Your task to perform on an android device: Search for the best rated headphones on Amazon Image 0: 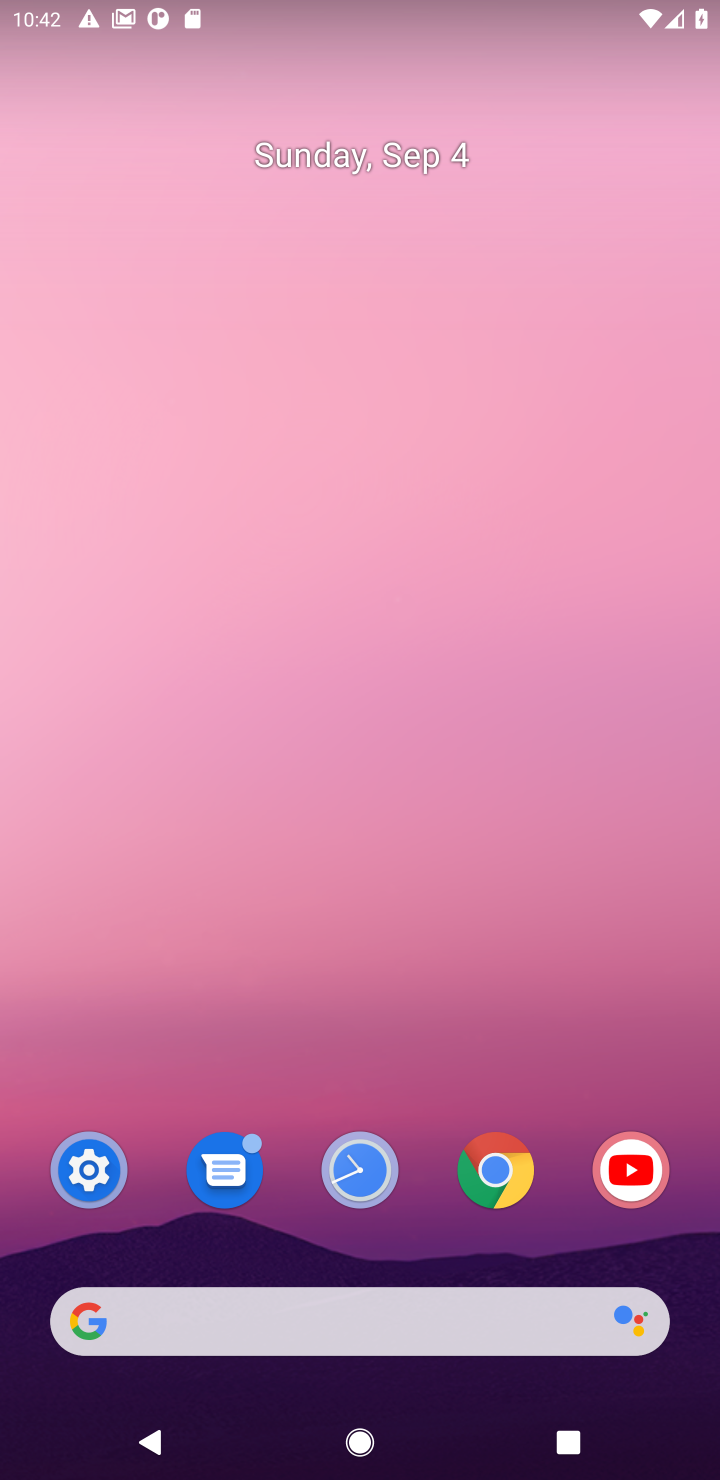
Step 0: click (398, 1263)
Your task to perform on an android device: Search for the best rated headphones on Amazon Image 1: 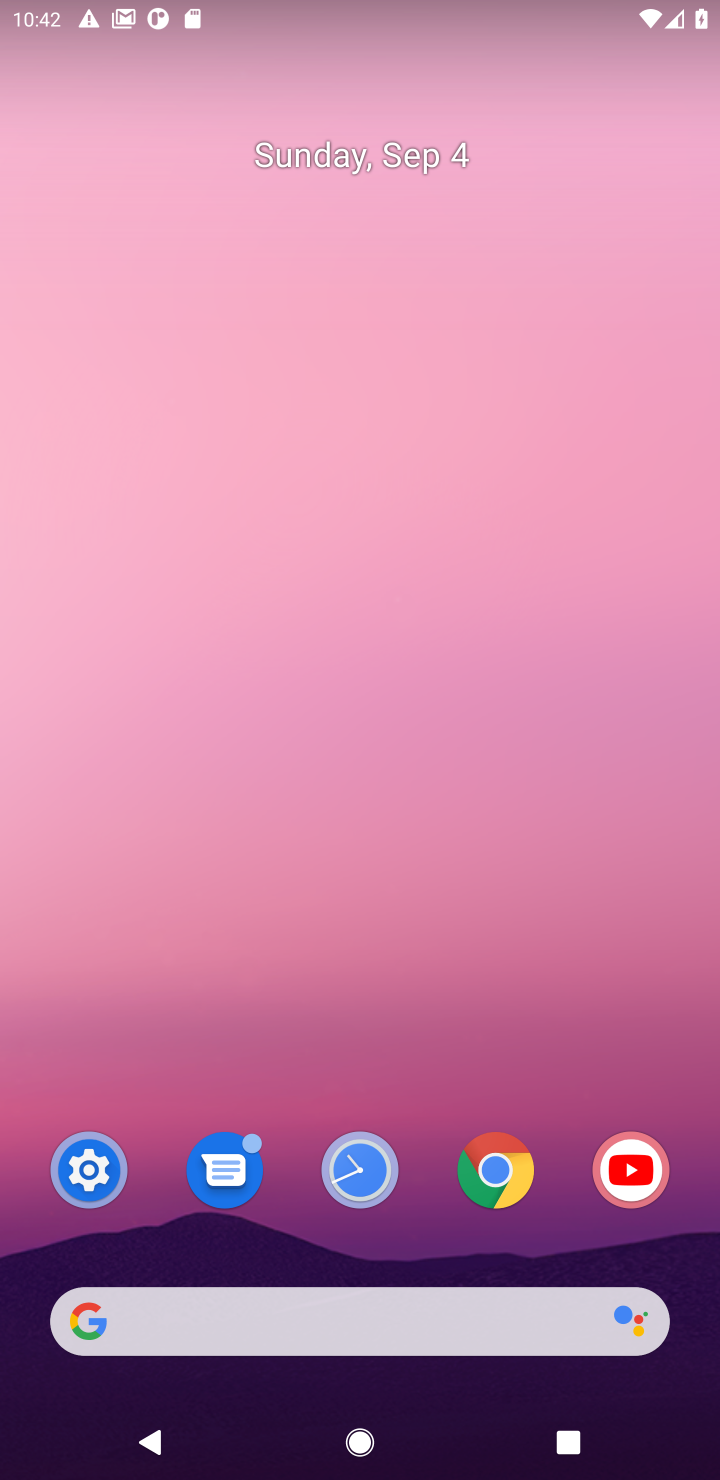
Step 1: click (502, 1167)
Your task to perform on an android device: Search for the best rated headphones on Amazon Image 2: 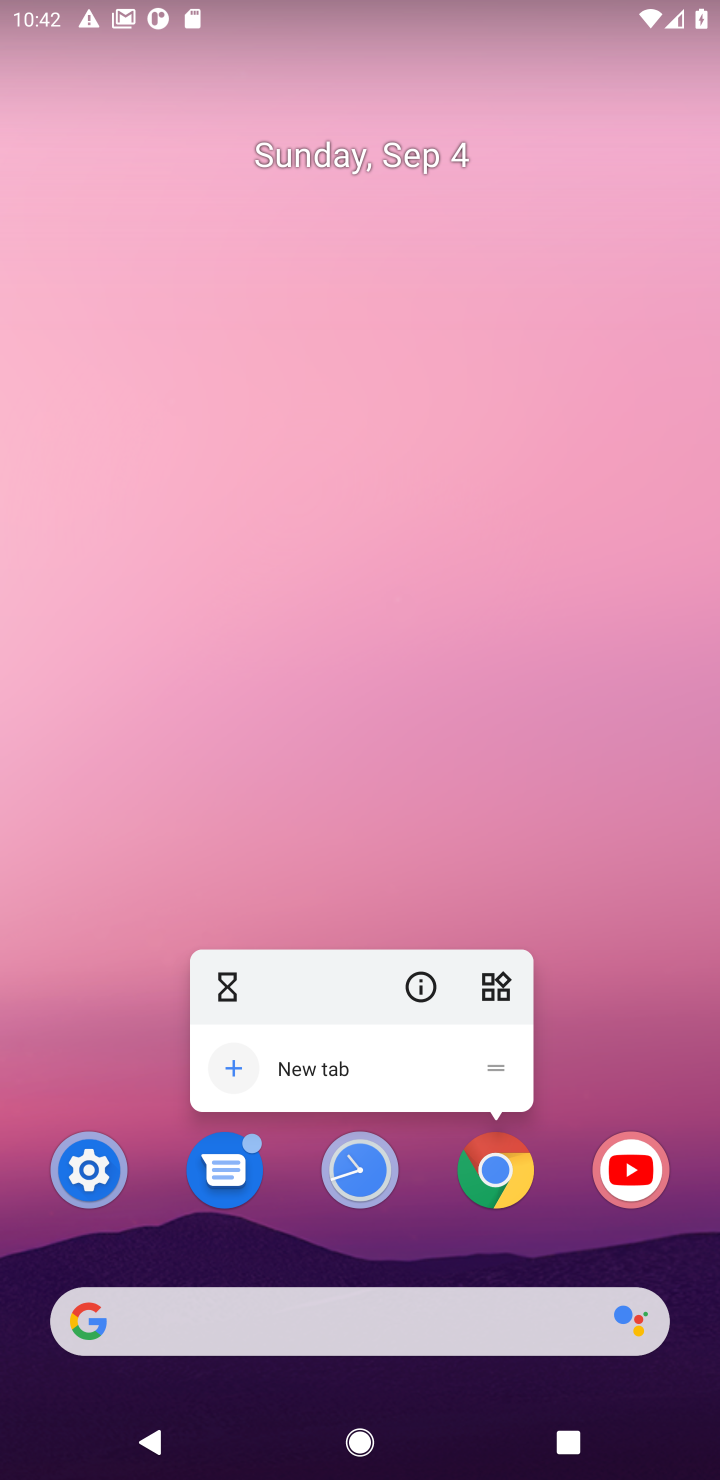
Step 2: click (518, 1180)
Your task to perform on an android device: Search for the best rated headphones on Amazon Image 3: 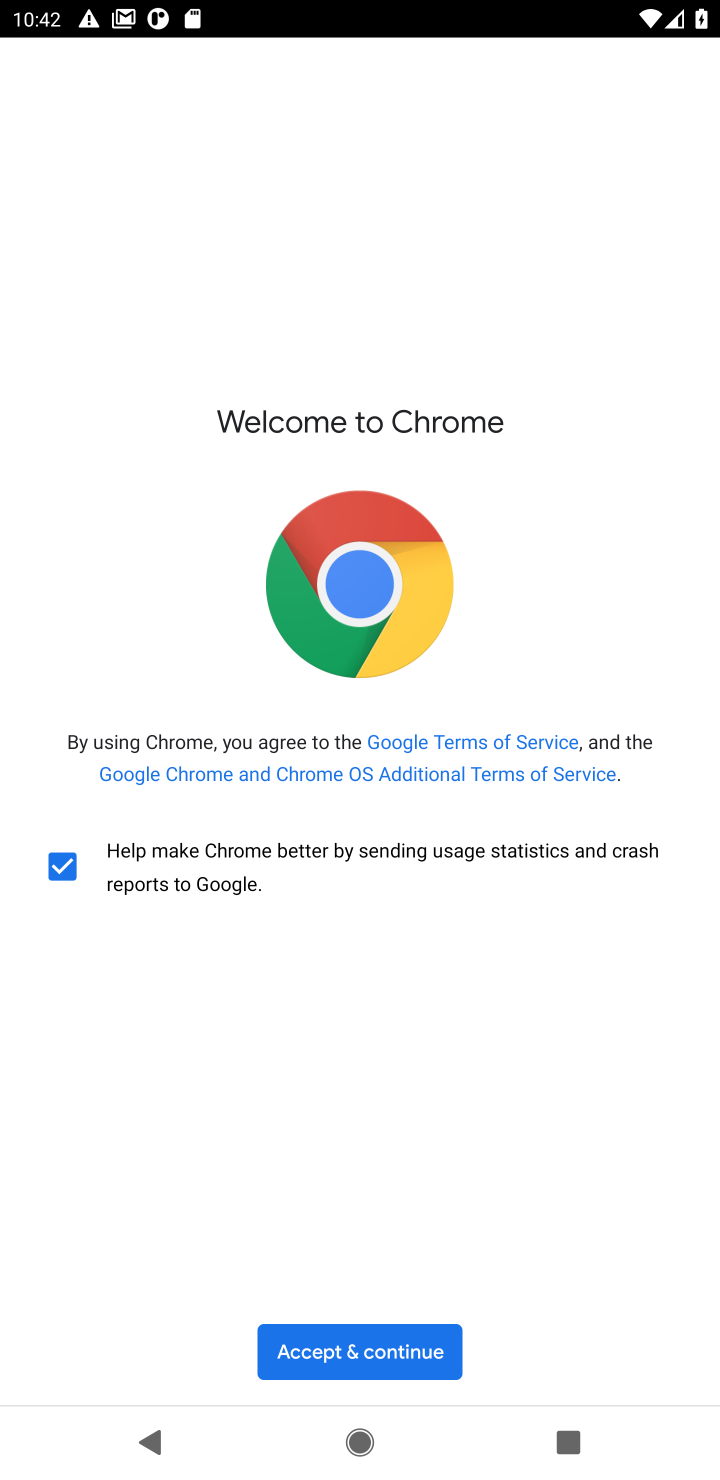
Step 3: click (385, 1333)
Your task to perform on an android device: Search for the best rated headphones on Amazon Image 4: 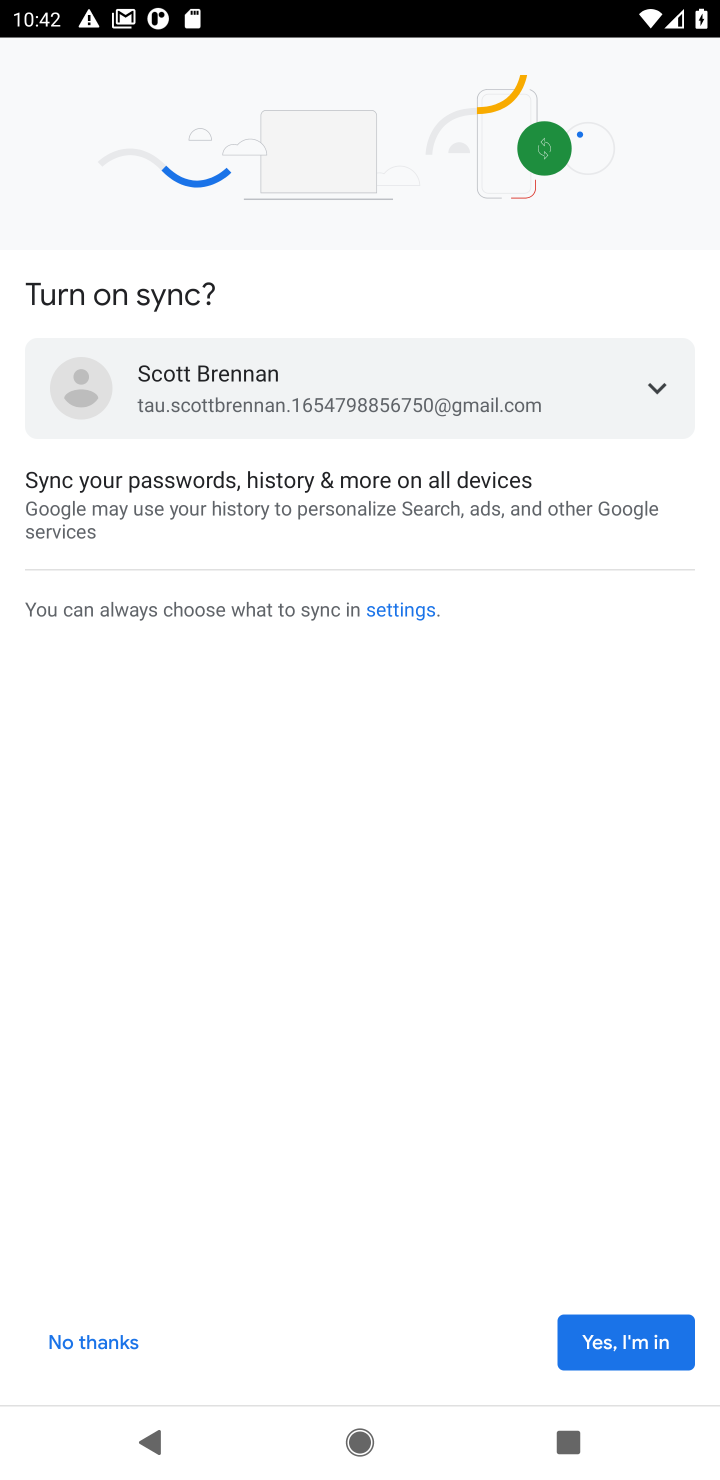
Step 4: click (601, 1333)
Your task to perform on an android device: Search for the best rated headphones on Amazon Image 5: 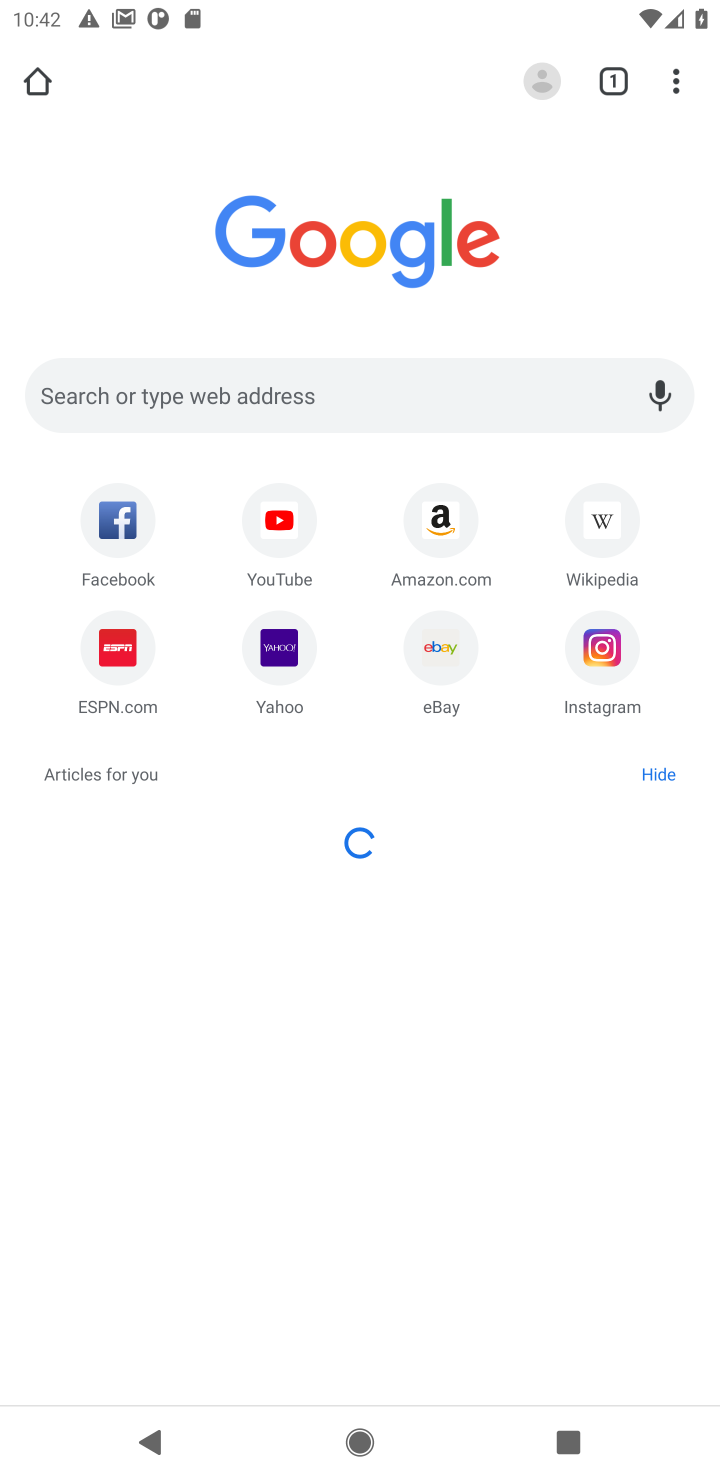
Step 5: click (295, 417)
Your task to perform on an android device: Search for the best rated headphones on Amazon Image 6: 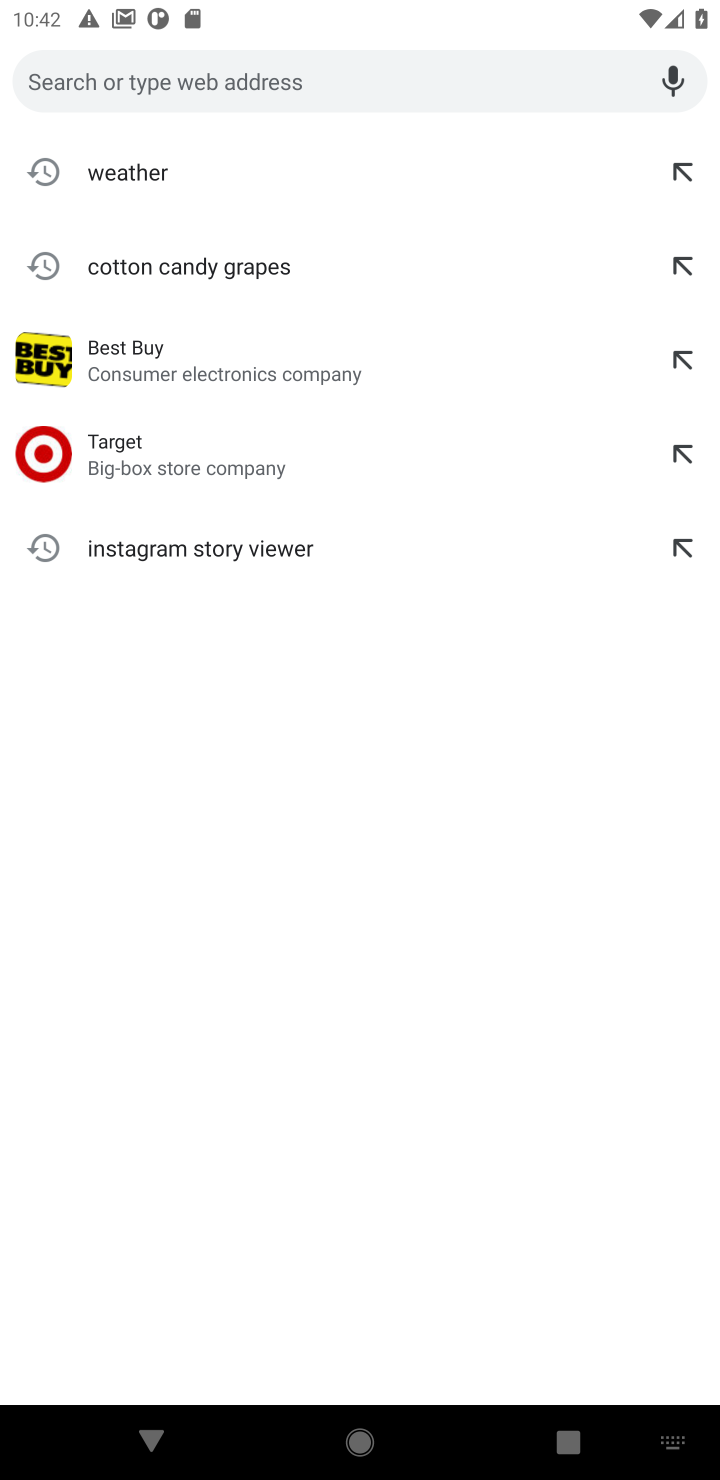
Step 6: press back button
Your task to perform on an android device: Search for the best rated headphones on Amazon Image 7: 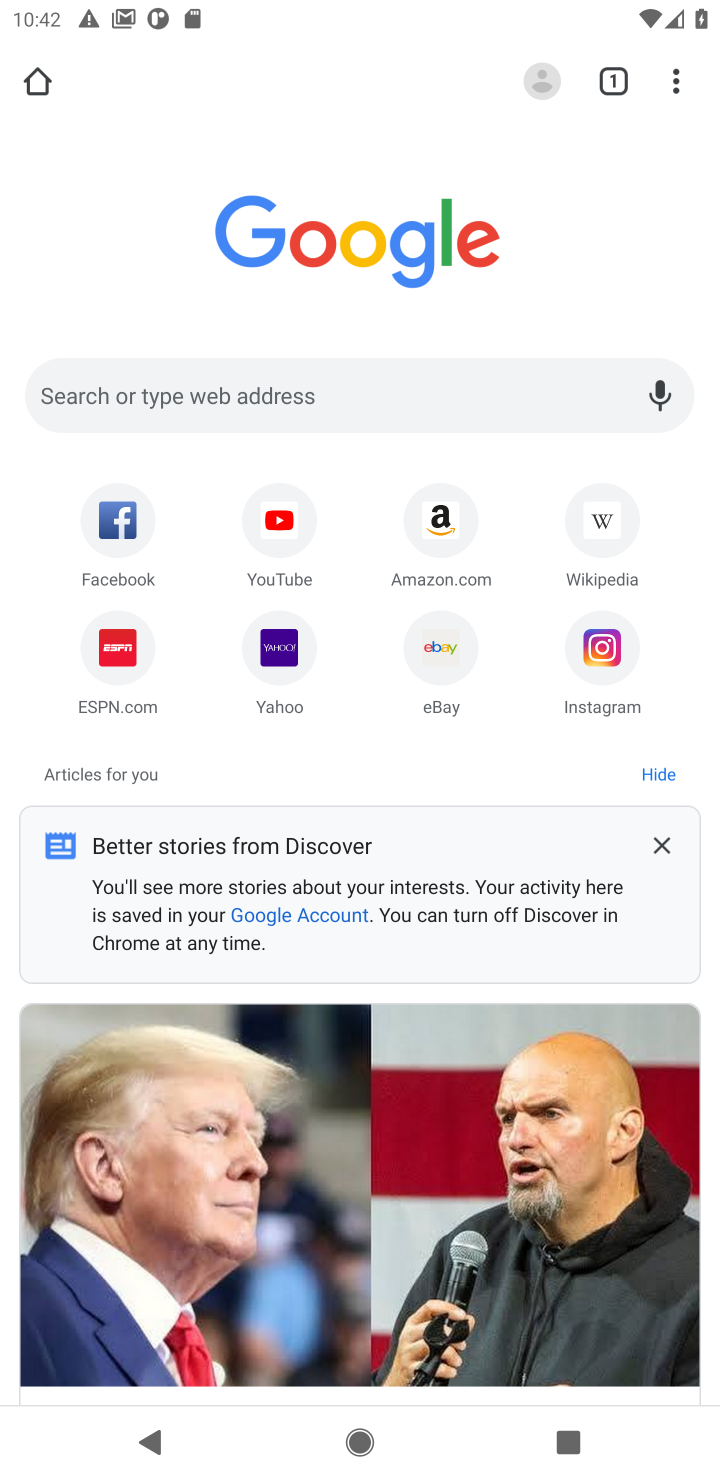
Step 7: click (451, 500)
Your task to perform on an android device: Search for the best rated headphones on Amazon Image 8: 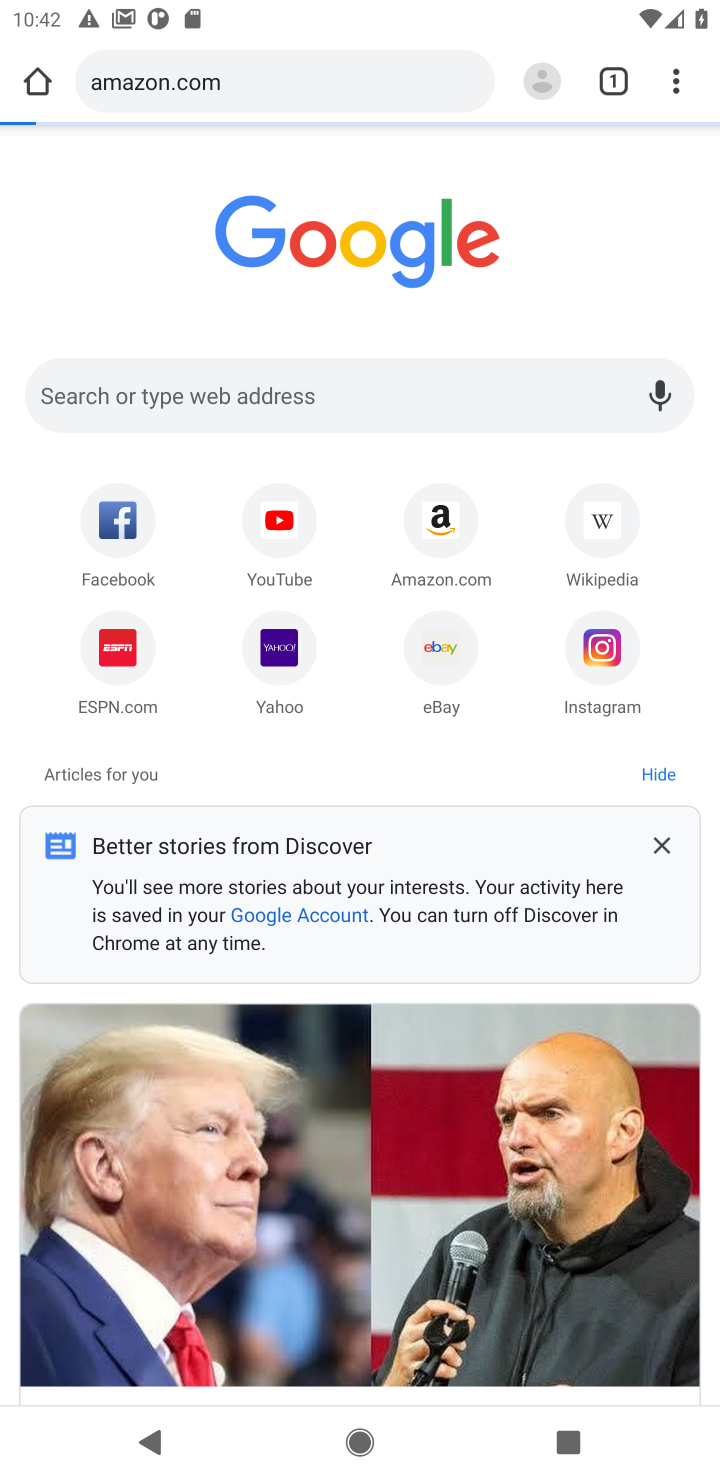
Step 8: click (447, 546)
Your task to perform on an android device: Search for the best rated headphones on Amazon Image 9: 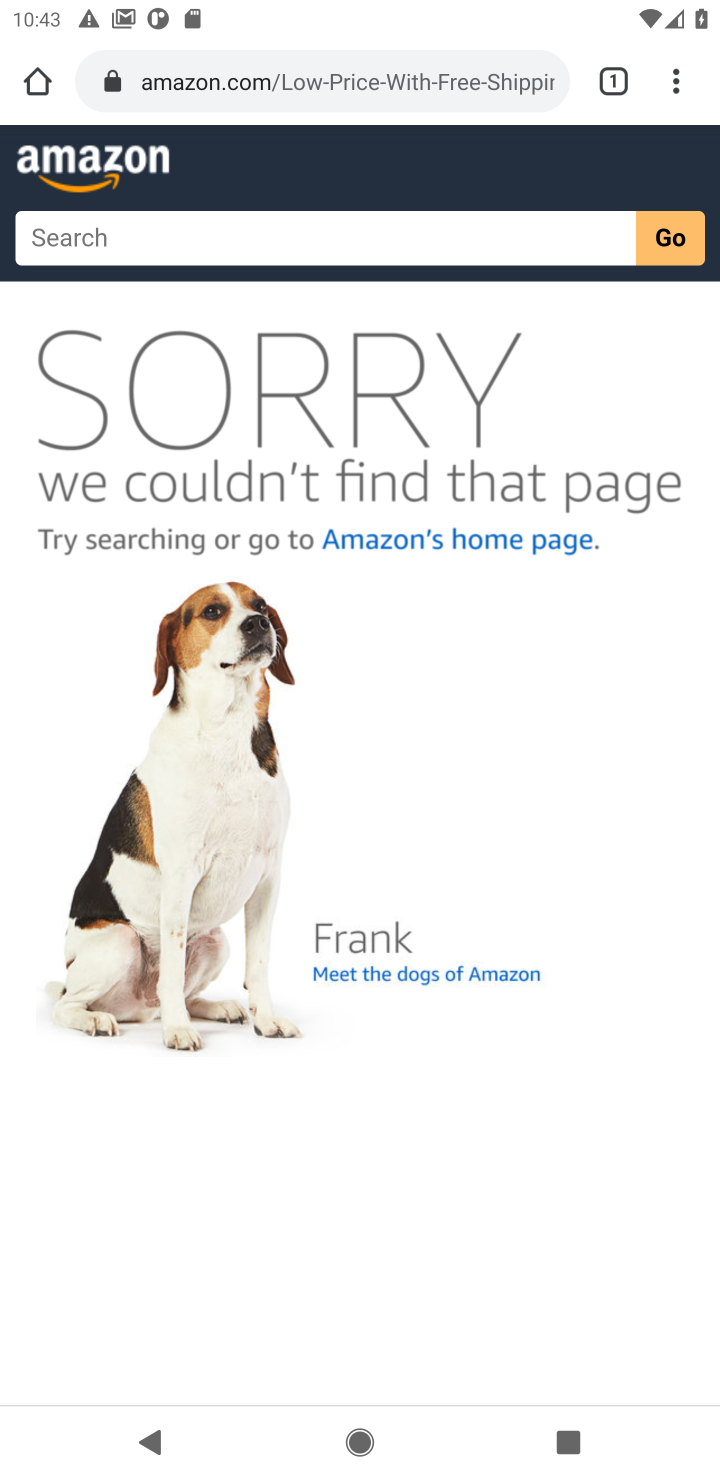
Step 9: click (234, 234)
Your task to perform on an android device: Search for the best rated headphones on Amazon Image 10: 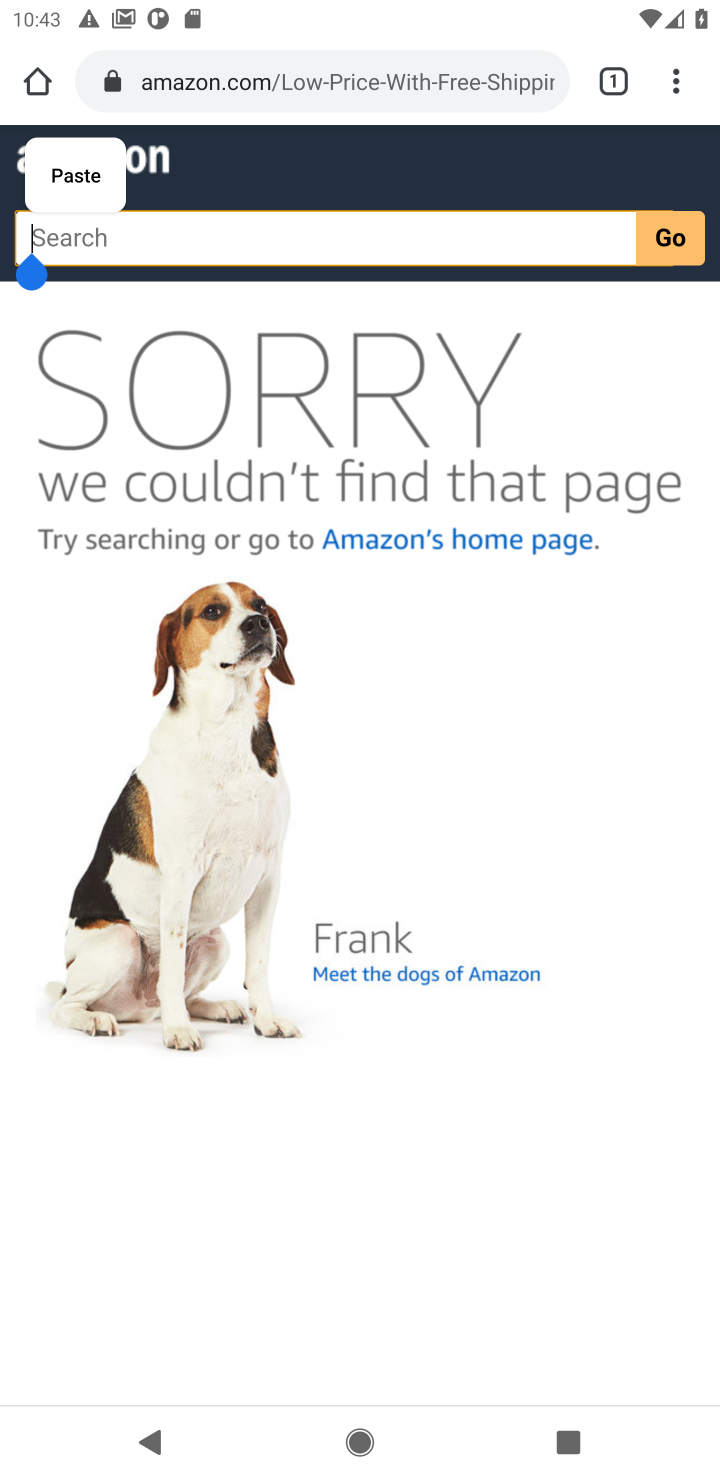
Step 10: type "the best rated headphones"
Your task to perform on an android device: Search for the best rated headphones on Amazon Image 11: 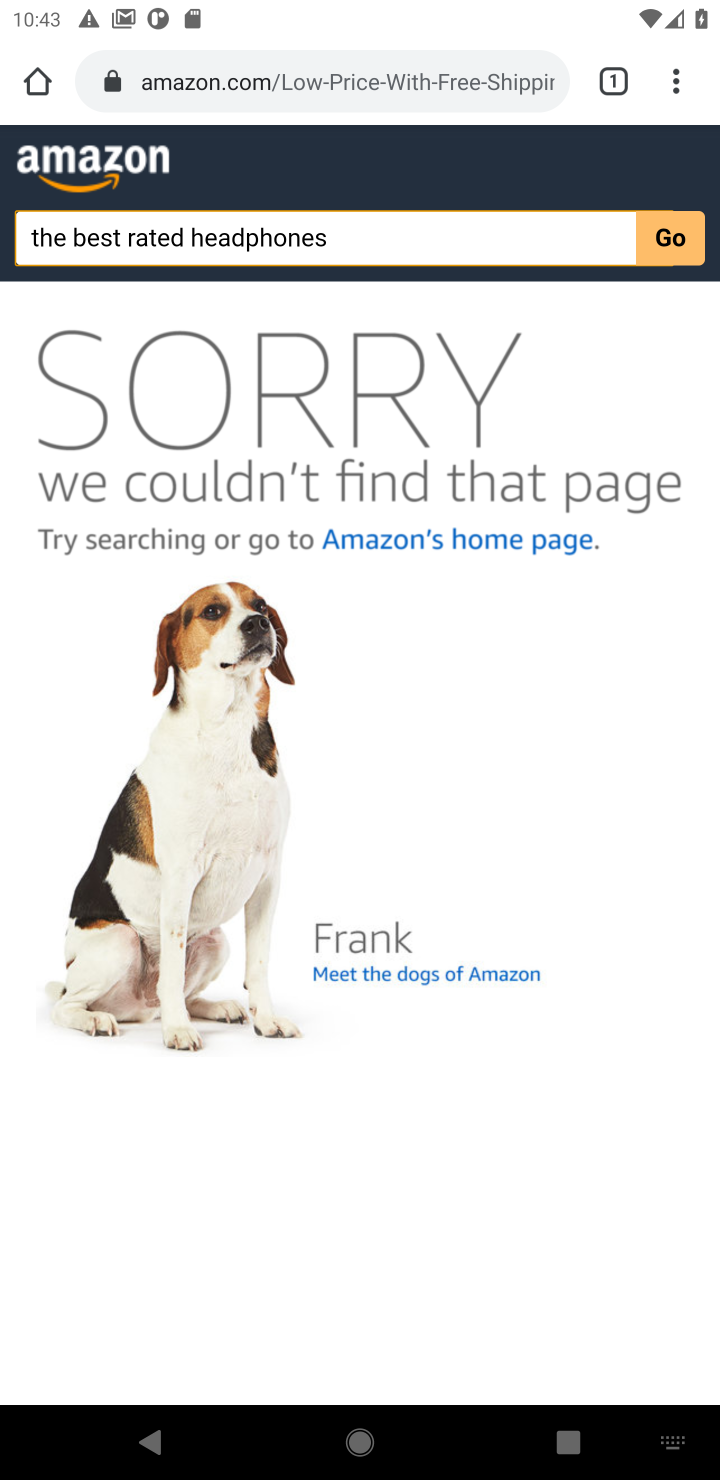
Step 11: click (662, 245)
Your task to perform on an android device: Search for the best rated headphones on Amazon Image 12: 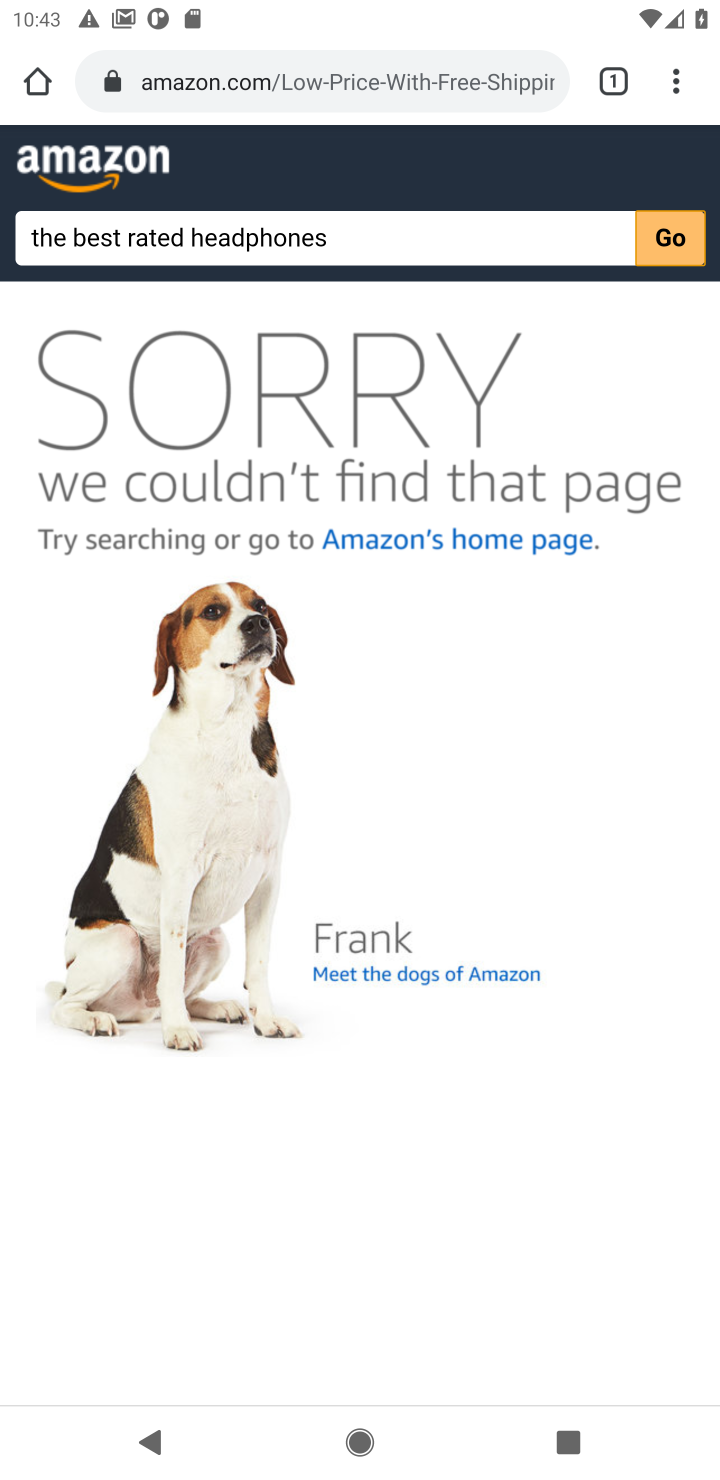
Step 12: click (671, 248)
Your task to perform on an android device: Search for the best rated headphones on Amazon Image 13: 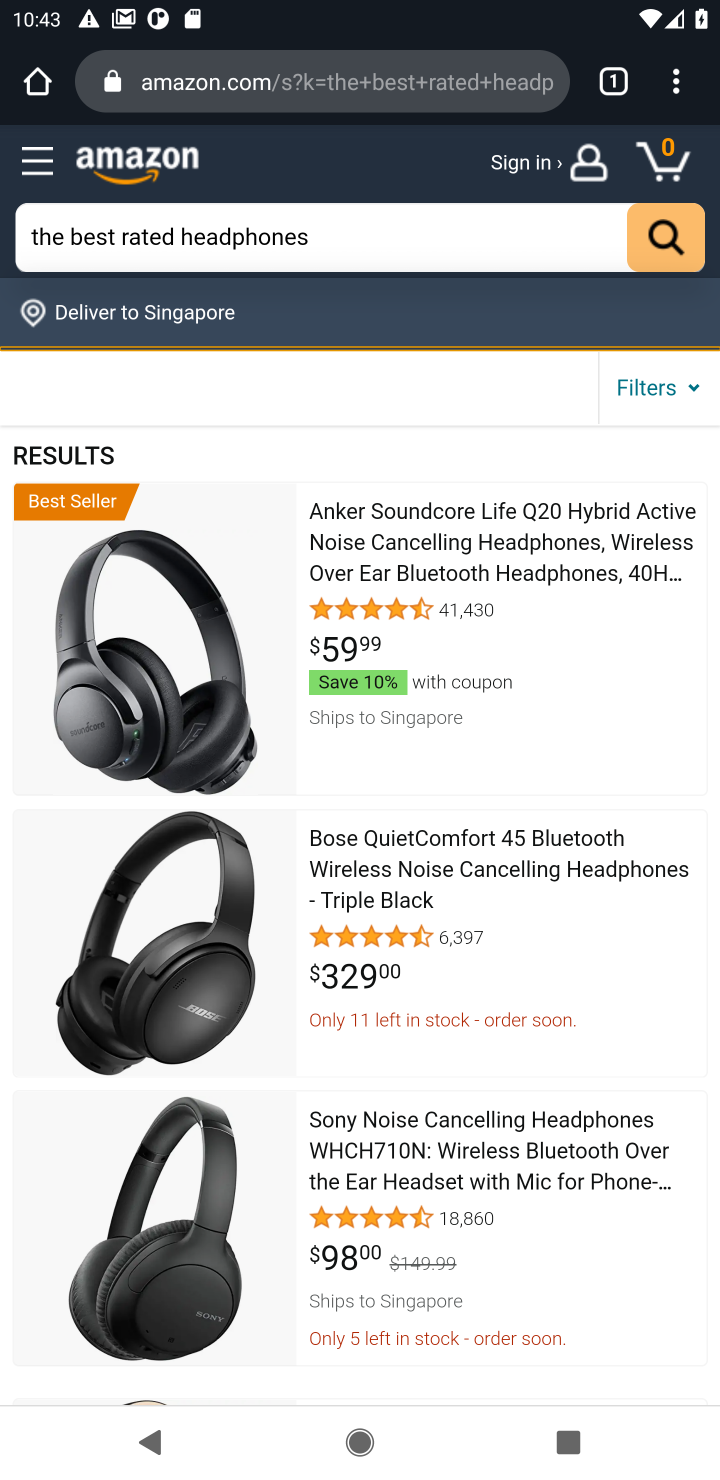
Step 13: click (313, 487)
Your task to perform on an android device: Search for the best rated headphones on Amazon Image 14: 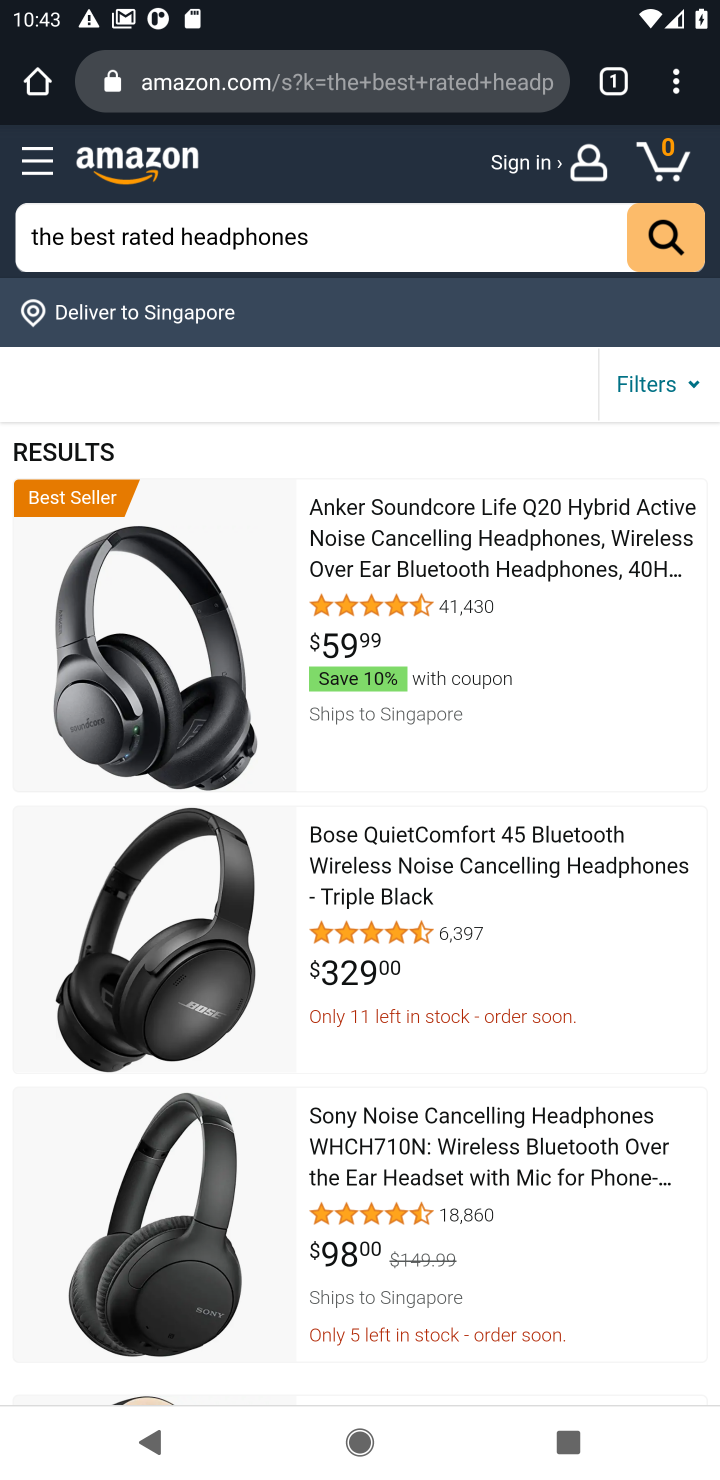
Step 14: task complete